Your task to perform on an android device: change notifications settings Image 0: 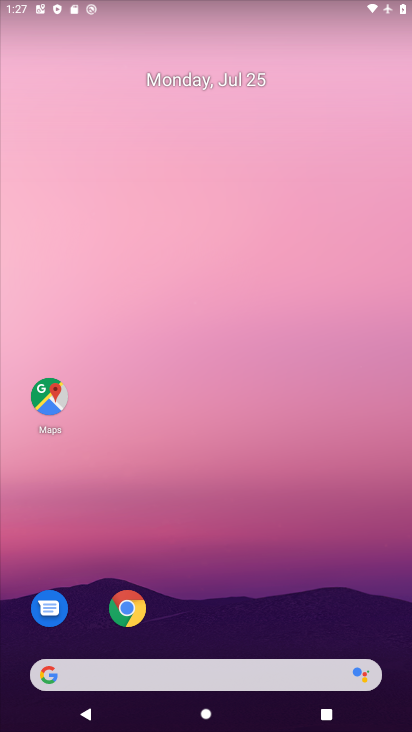
Step 0: drag from (203, 588) to (290, 173)
Your task to perform on an android device: change notifications settings Image 1: 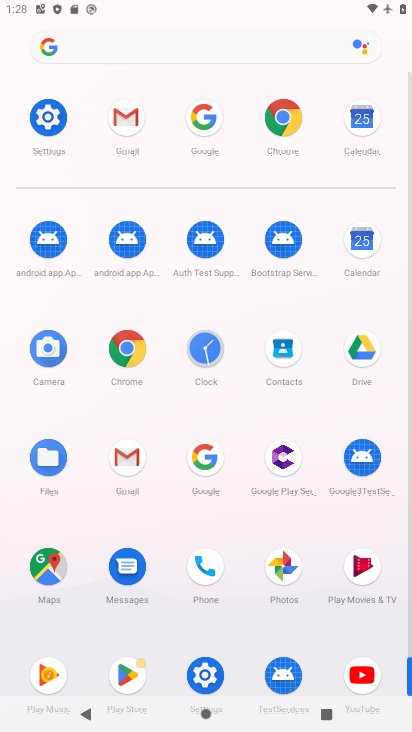
Step 1: click (48, 132)
Your task to perform on an android device: change notifications settings Image 2: 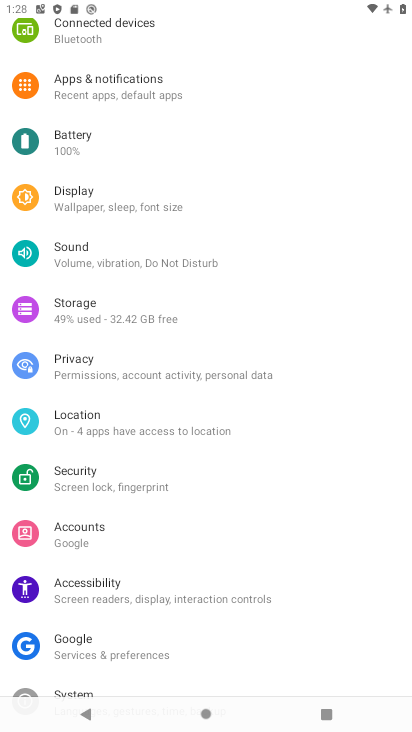
Step 2: click (115, 90)
Your task to perform on an android device: change notifications settings Image 3: 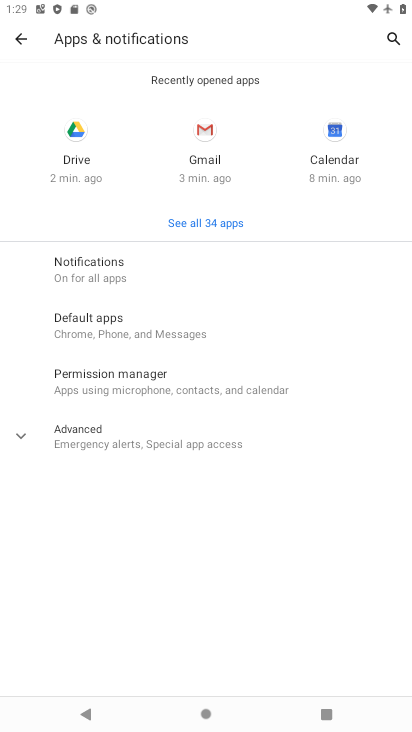
Step 3: click (126, 270)
Your task to perform on an android device: change notifications settings Image 4: 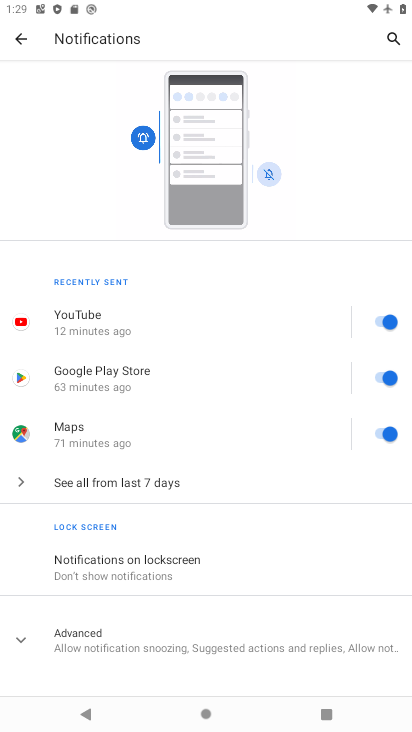
Step 4: click (384, 326)
Your task to perform on an android device: change notifications settings Image 5: 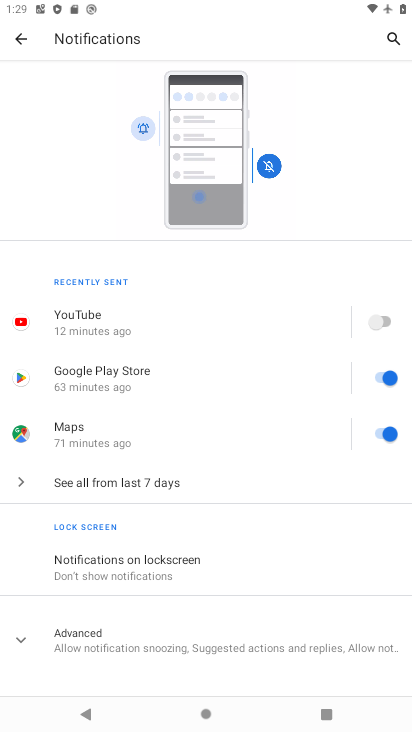
Step 5: task complete